Your task to perform on an android device: Open internet settings Image 0: 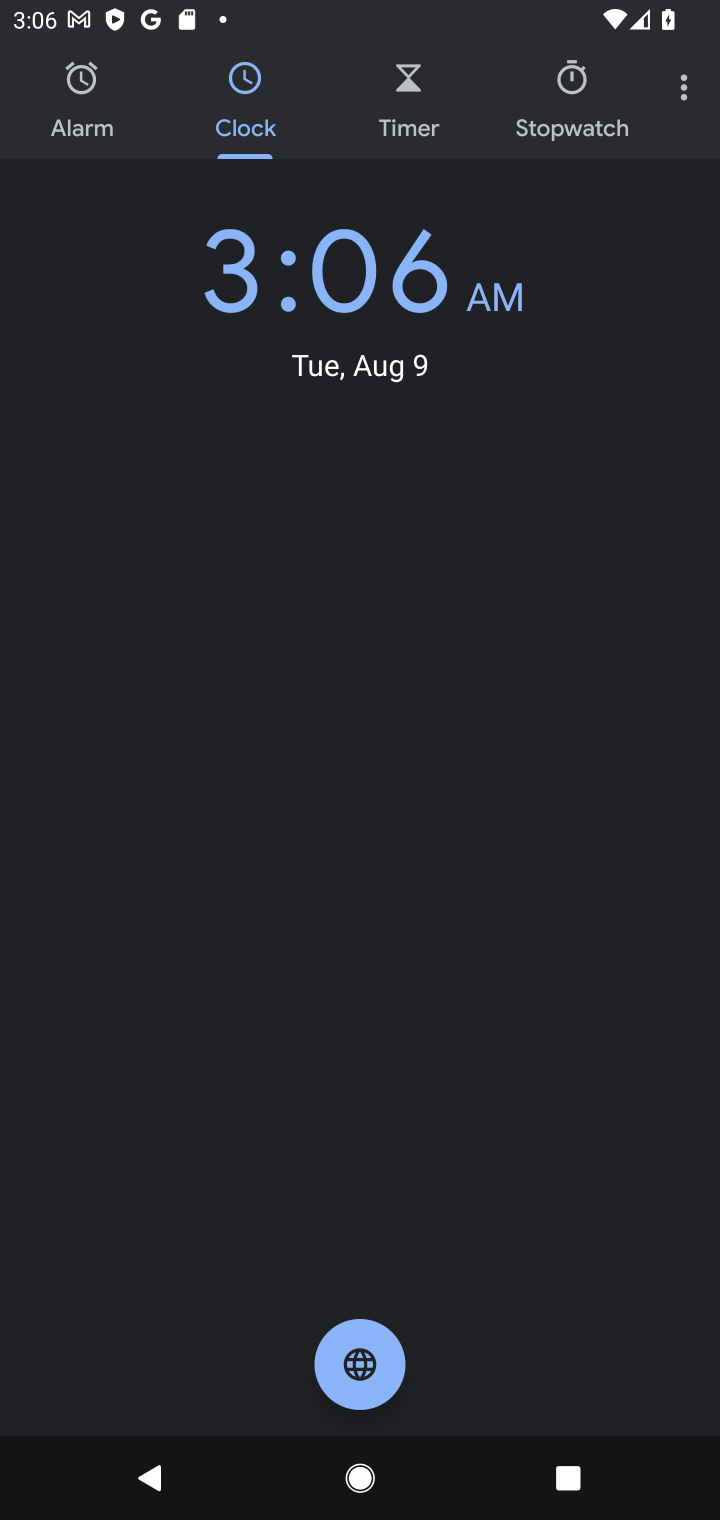
Step 0: press home button
Your task to perform on an android device: Open internet settings Image 1: 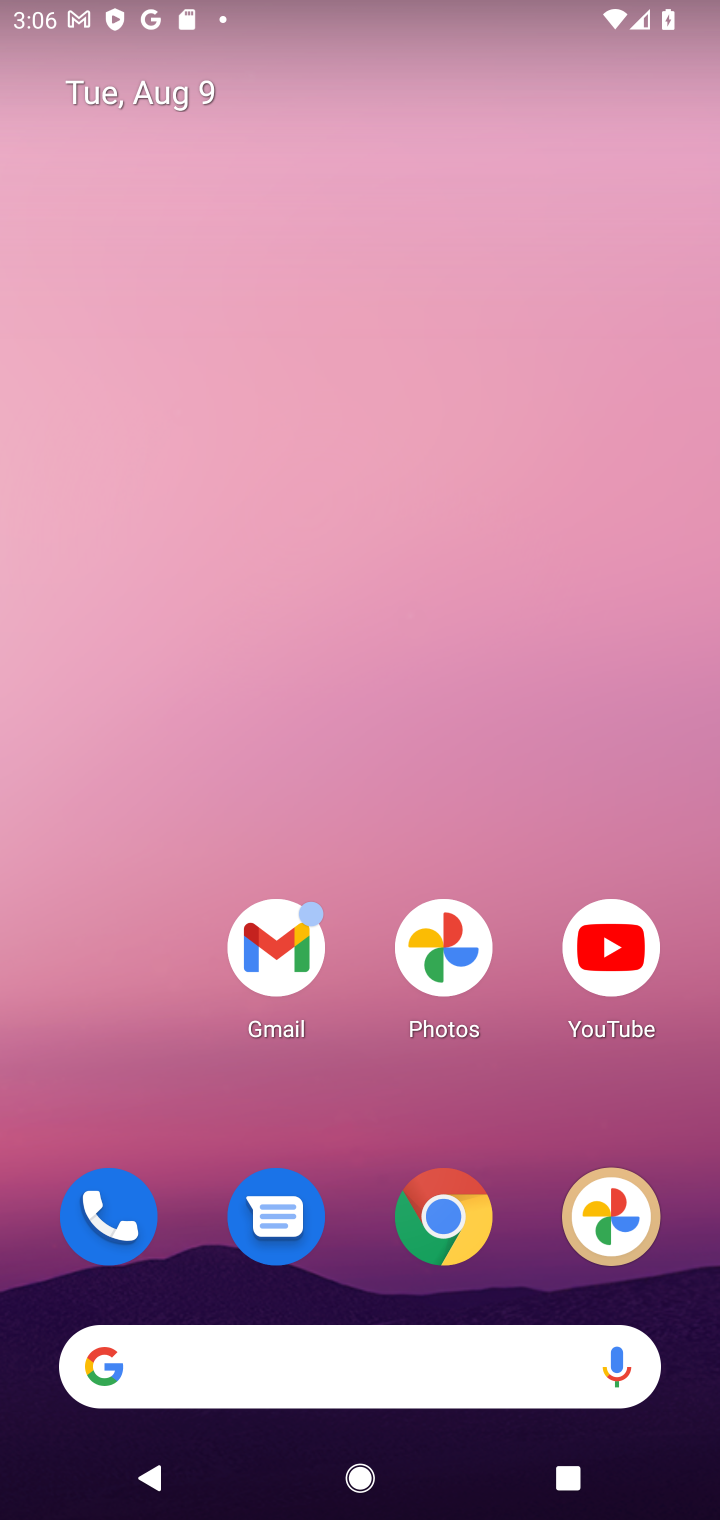
Step 1: drag from (346, 1141) to (346, 167)
Your task to perform on an android device: Open internet settings Image 2: 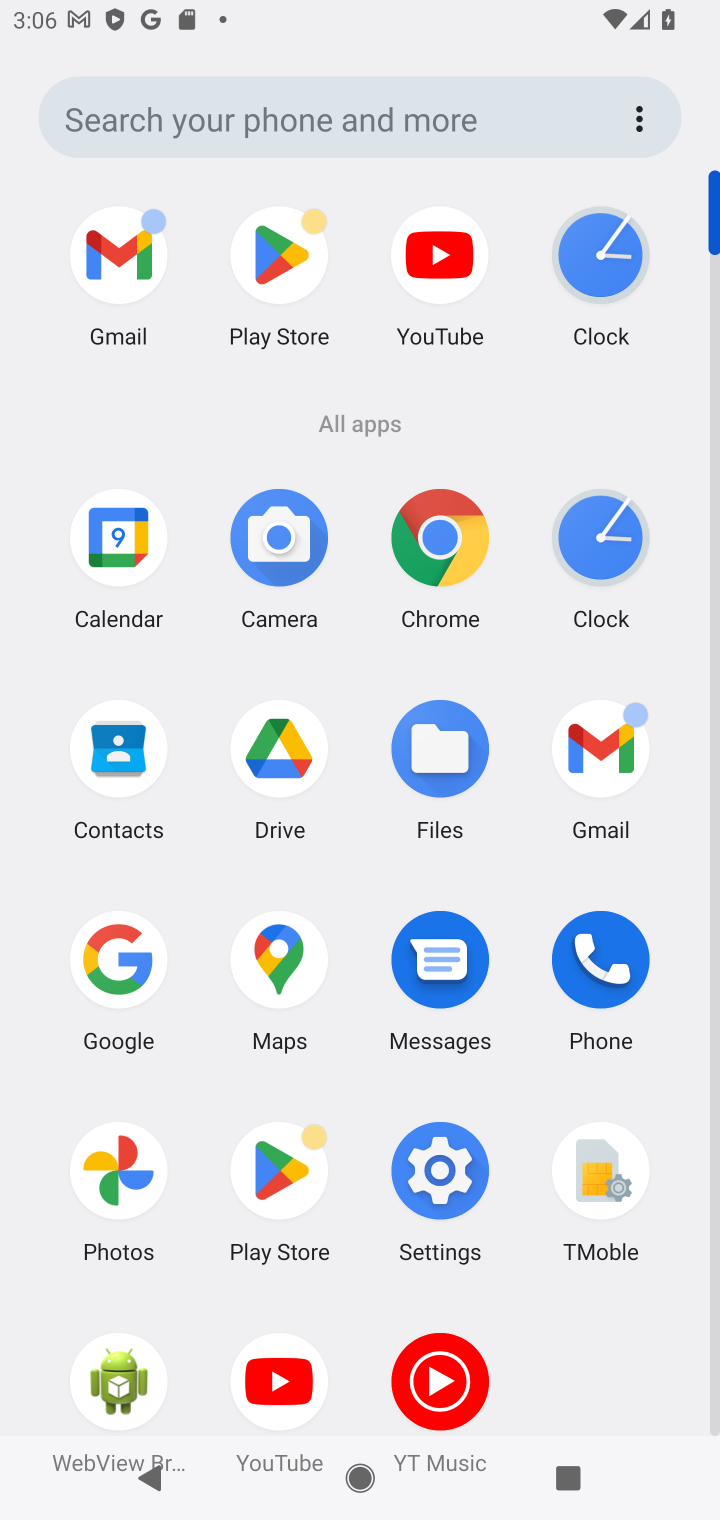
Step 2: click (423, 1194)
Your task to perform on an android device: Open internet settings Image 3: 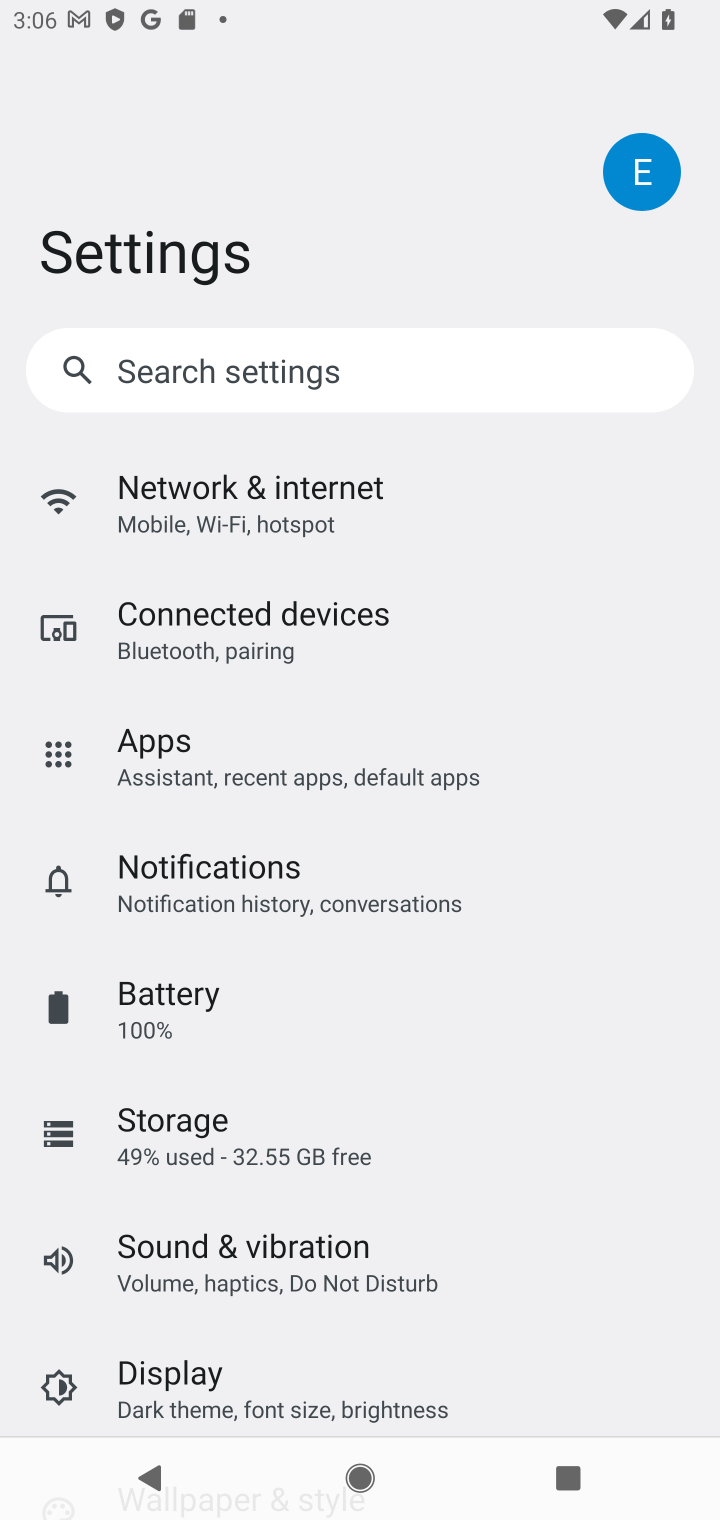
Step 3: click (339, 506)
Your task to perform on an android device: Open internet settings Image 4: 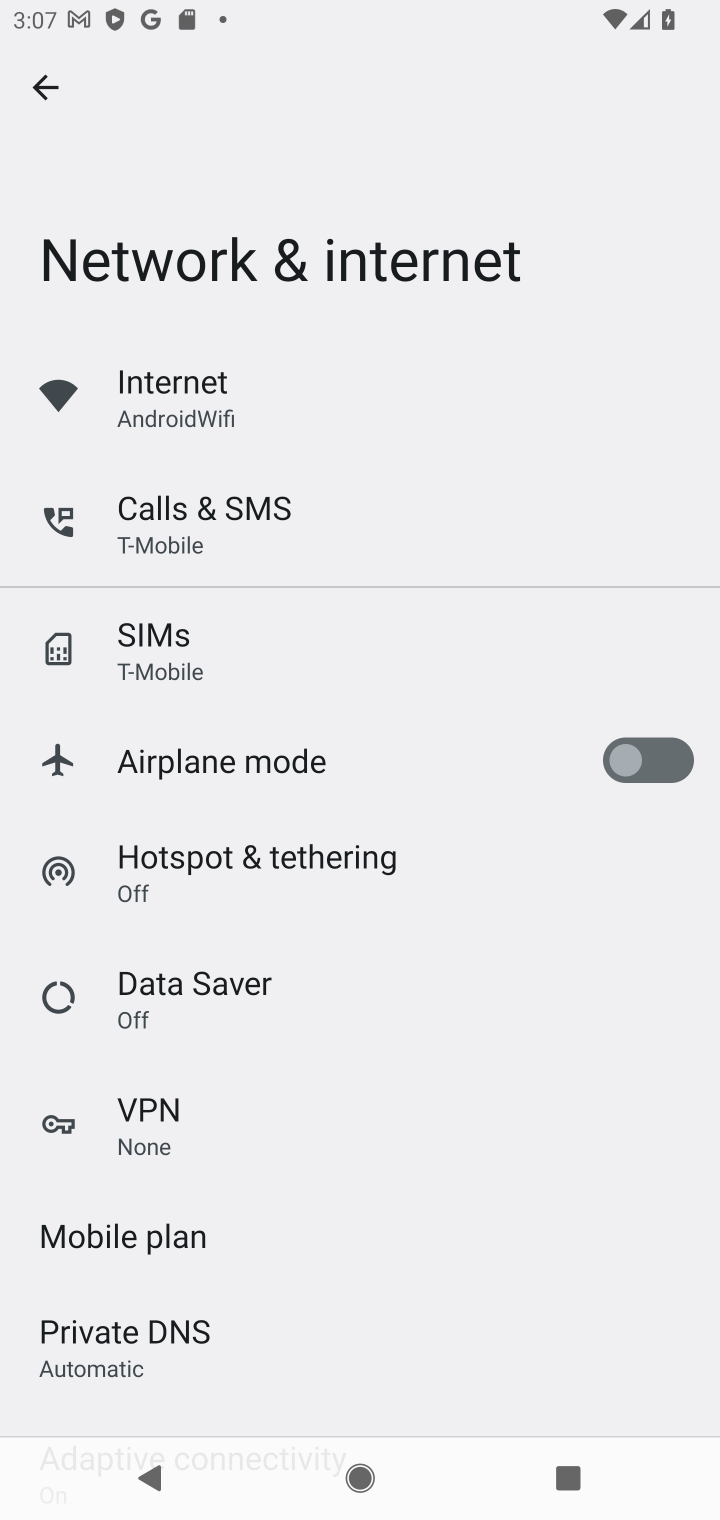
Step 4: click (207, 377)
Your task to perform on an android device: Open internet settings Image 5: 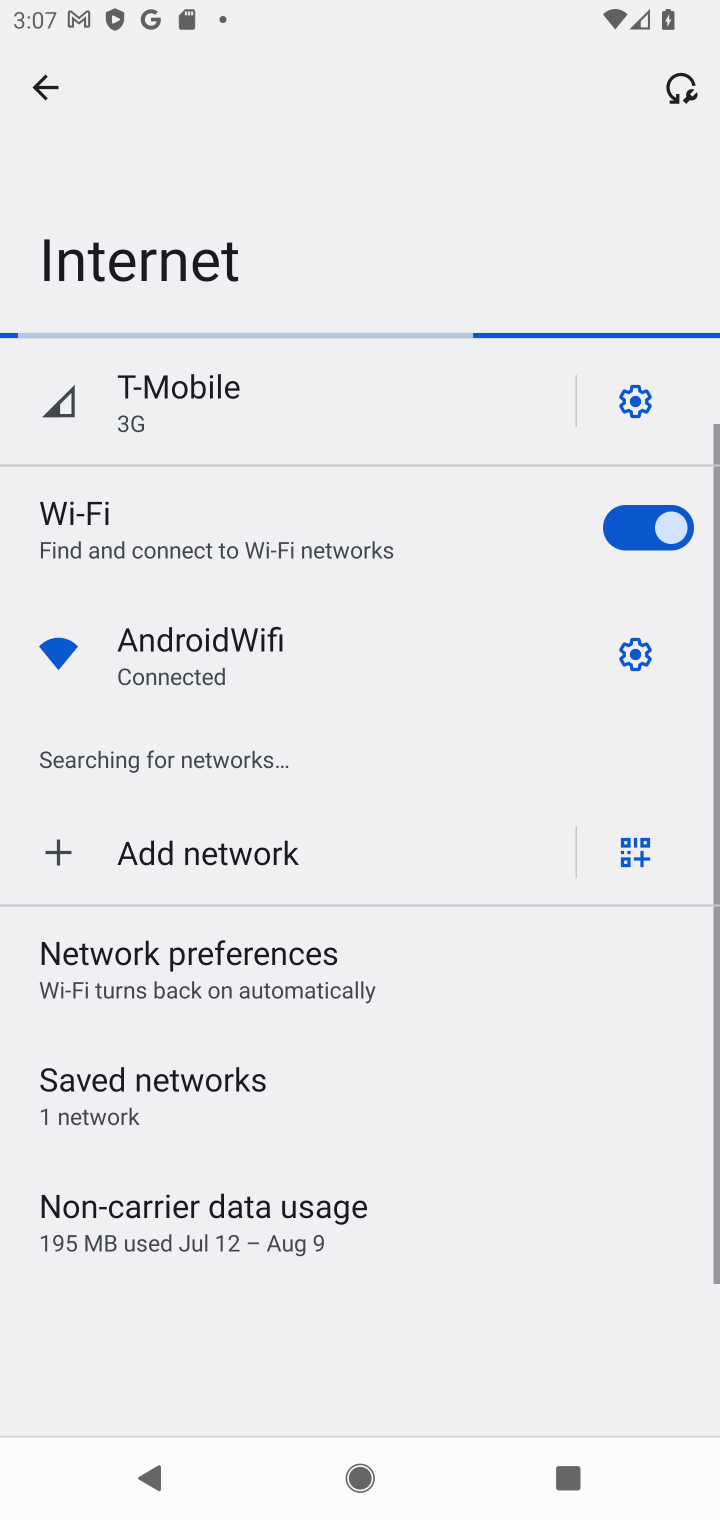
Step 5: task complete